Your task to perform on an android device: turn on data saver in the chrome app Image 0: 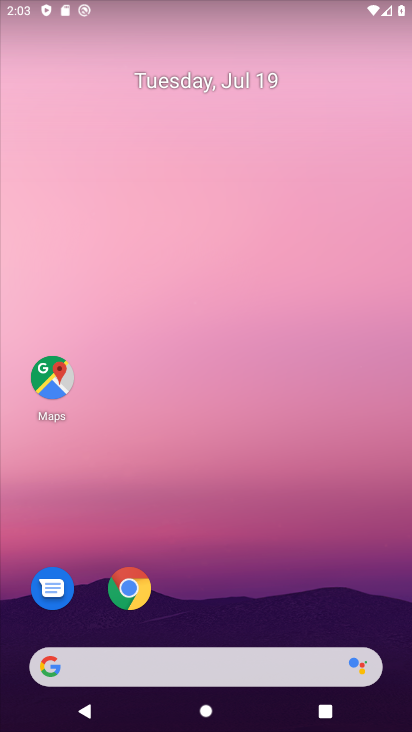
Step 0: click (132, 591)
Your task to perform on an android device: turn on data saver in the chrome app Image 1: 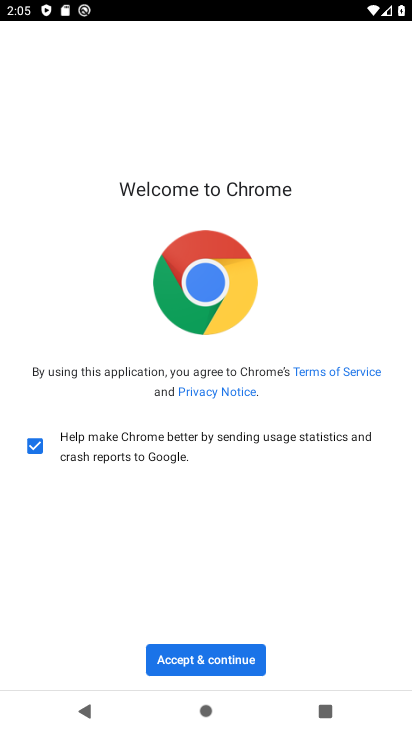
Step 1: click (193, 658)
Your task to perform on an android device: turn on data saver in the chrome app Image 2: 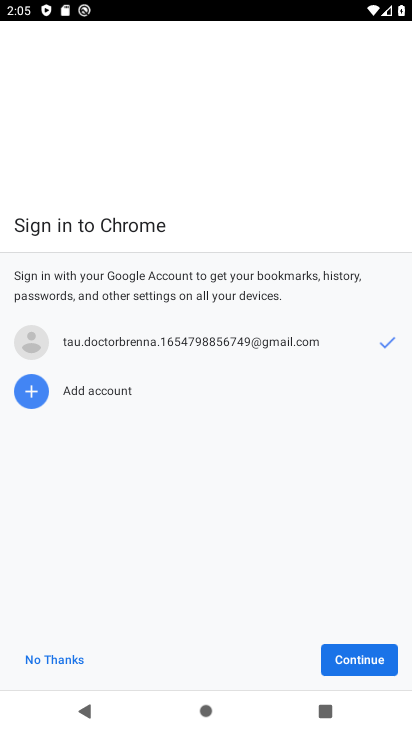
Step 2: click (368, 655)
Your task to perform on an android device: turn on data saver in the chrome app Image 3: 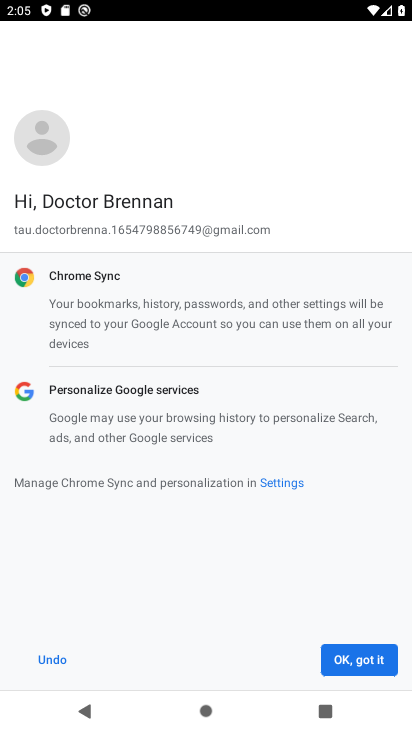
Step 3: click (360, 666)
Your task to perform on an android device: turn on data saver in the chrome app Image 4: 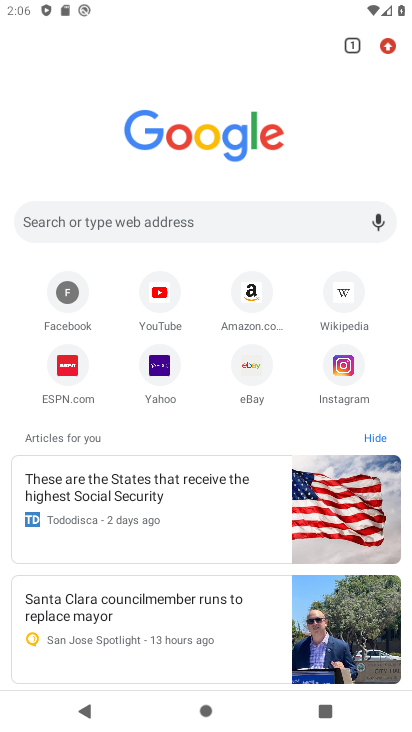
Step 4: task complete